Your task to perform on an android device: Do I have any events this weekend? Image 0: 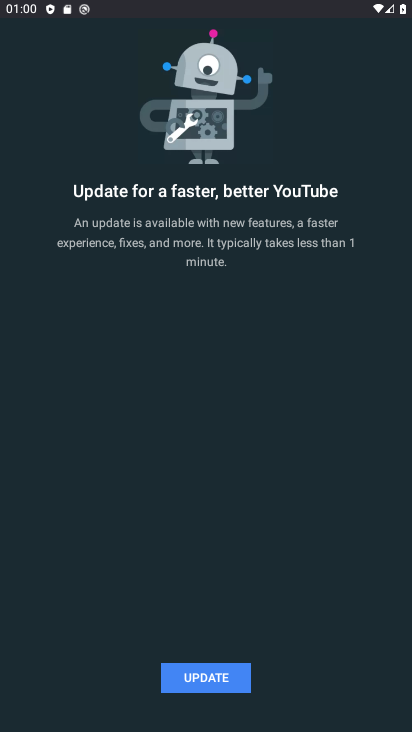
Step 0: press home button
Your task to perform on an android device: Do I have any events this weekend? Image 1: 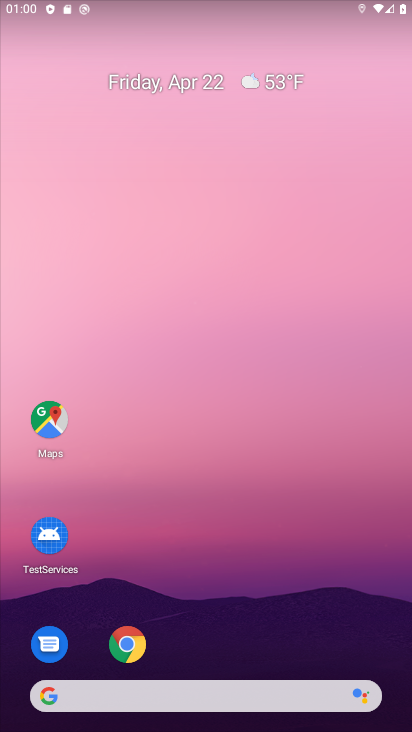
Step 1: drag from (296, 623) to (304, 45)
Your task to perform on an android device: Do I have any events this weekend? Image 2: 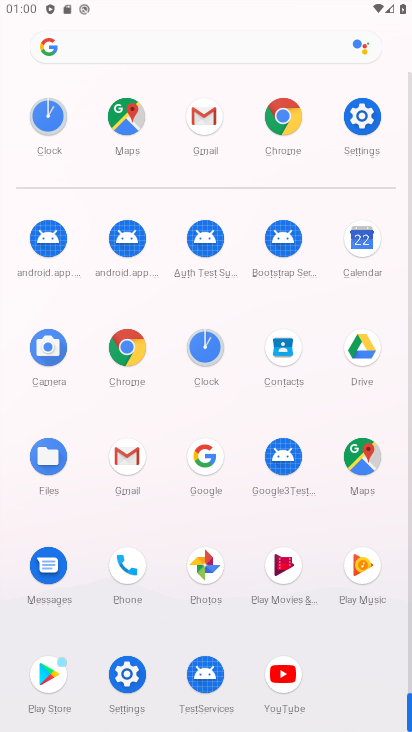
Step 2: click (358, 242)
Your task to perform on an android device: Do I have any events this weekend? Image 3: 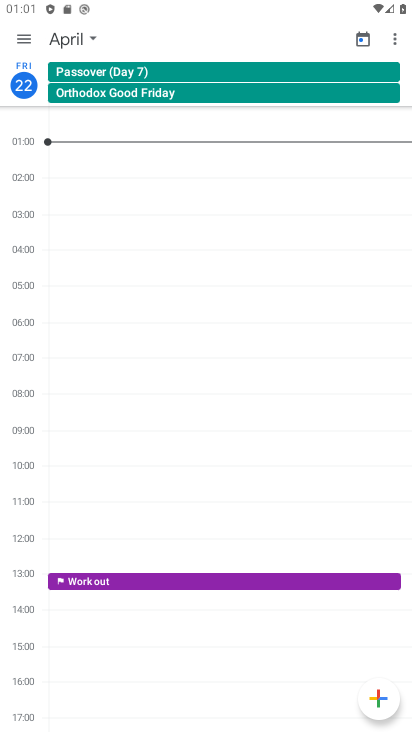
Step 3: click (63, 40)
Your task to perform on an android device: Do I have any events this weekend? Image 4: 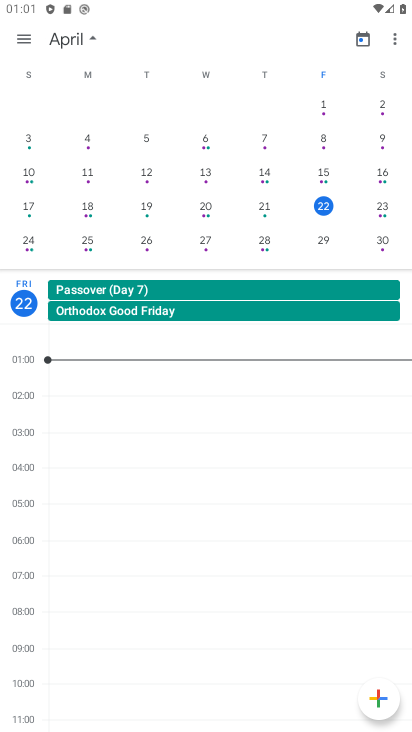
Step 4: click (63, 40)
Your task to perform on an android device: Do I have any events this weekend? Image 5: 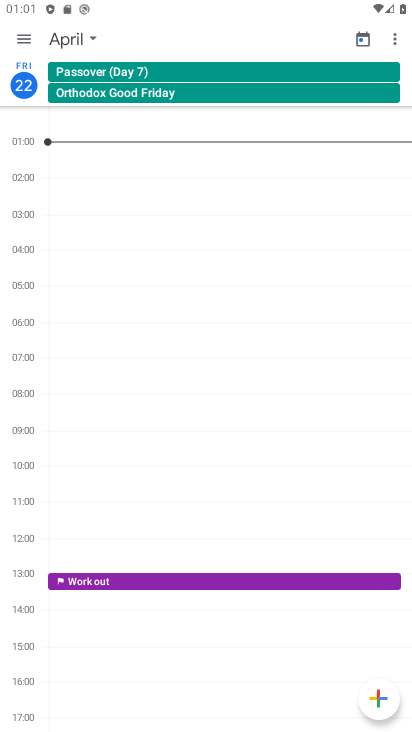
Step 5: click (63, 40)
Your task to perform on an android device: Do I have any events this weekend? Image 6: 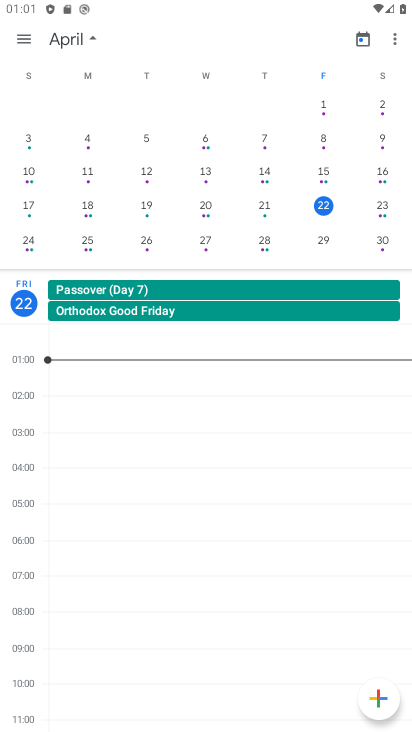
Step 6: click (324, 206)
Your task to perform on an android device: Do I have any events this weekend? Image 7: 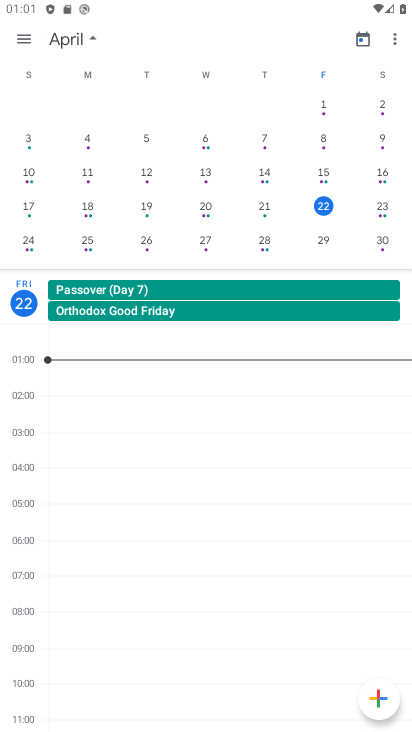
Step 7: click (377, 204)
Your task to perform on an android device: Do I have any events this weekend? Image 8: 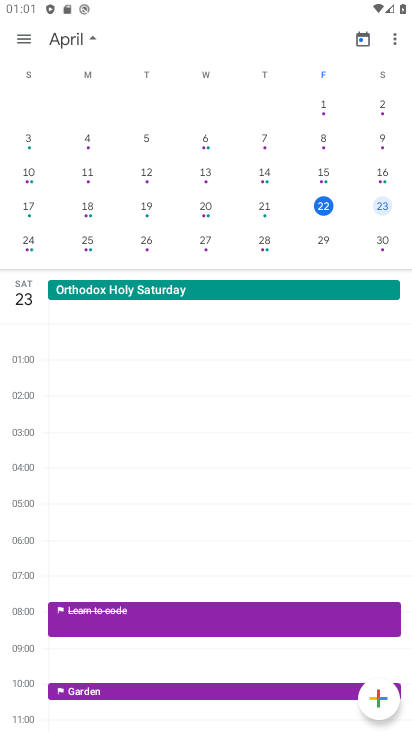
Step 8: click (333, 204)
Your task to perform on an android device: Do I have any events this weekend? Image 9: 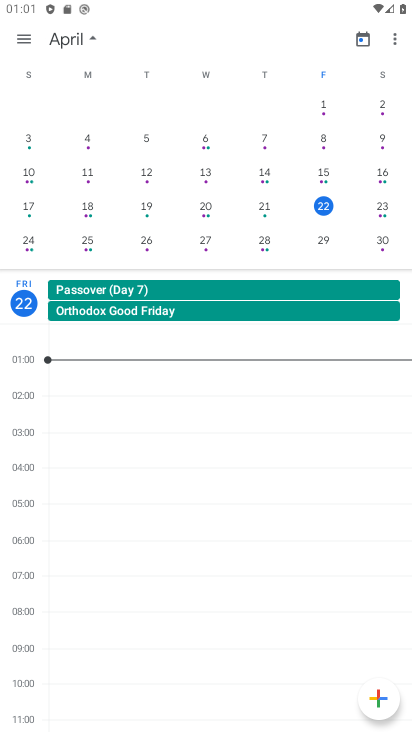
Step 9: click (73, 43)
Your task to perform on an android device: Do I have any events this weekend? Image 10: 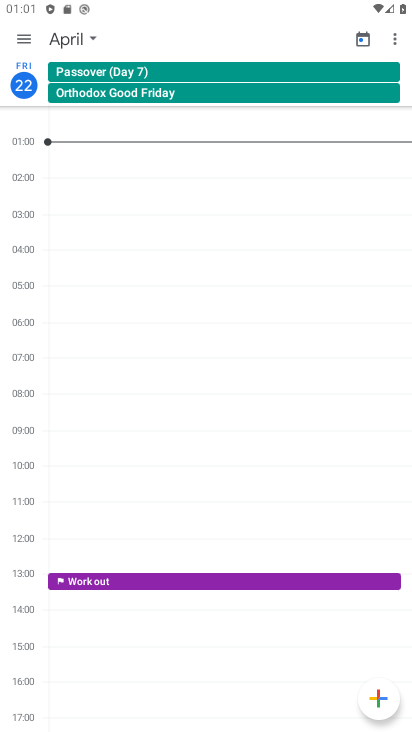
Step 10: click (22, 99)
Your task to perform on an android device: Do I have any events this weekend? Image 11: 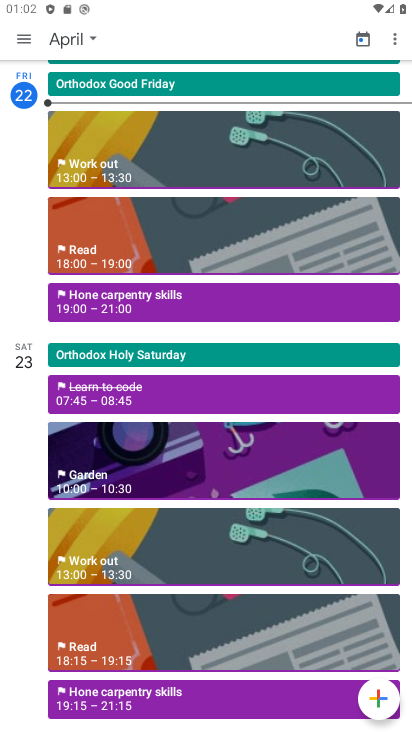
Step 11: task complete